Your task to perform on an android device: change the clock display to digital Image 0: 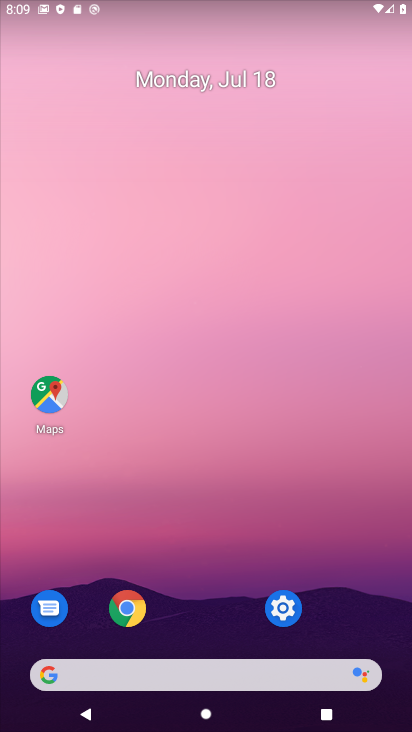
Step 0: drag from (276, 684) to (228, 266)
Your task to perform on an android device: change the clock display to digital Image 1: 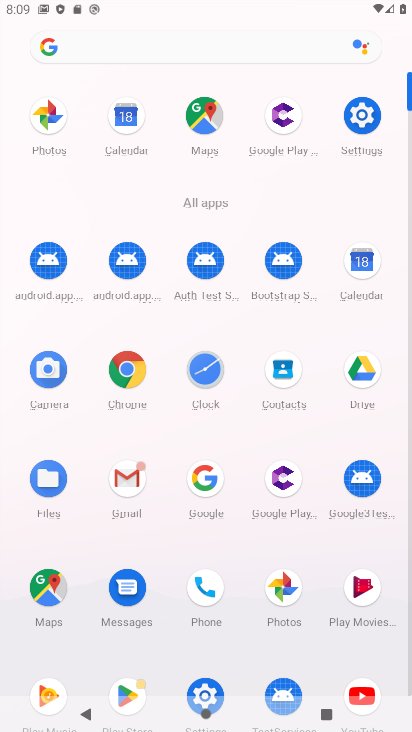
Step 1: click (207, 379)
Your task to perform on an android device: change the clock display to digital Image 2: 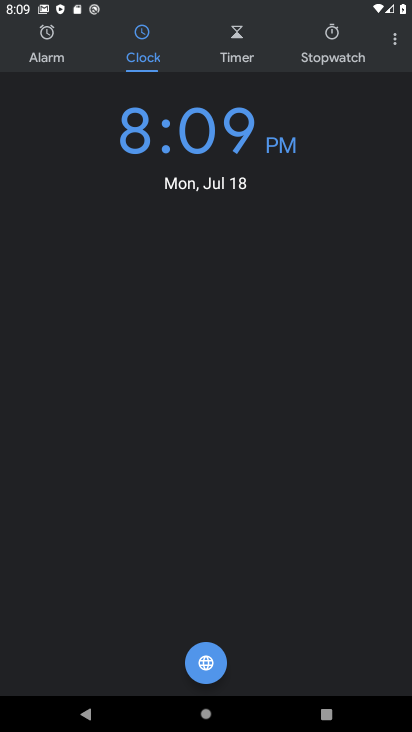
Step 2: click (393, 49)
Your task to perform on an android device: change the clock display to digital Image 3: 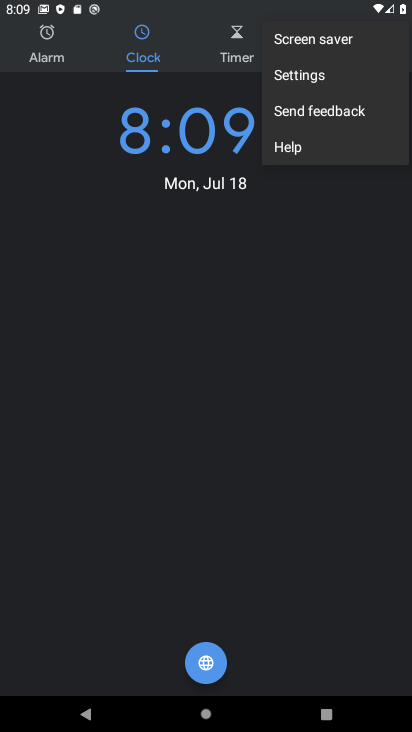
Step 3: click (300, 67)
Your task to perform on an android device: change the clock display to digital Image 4: 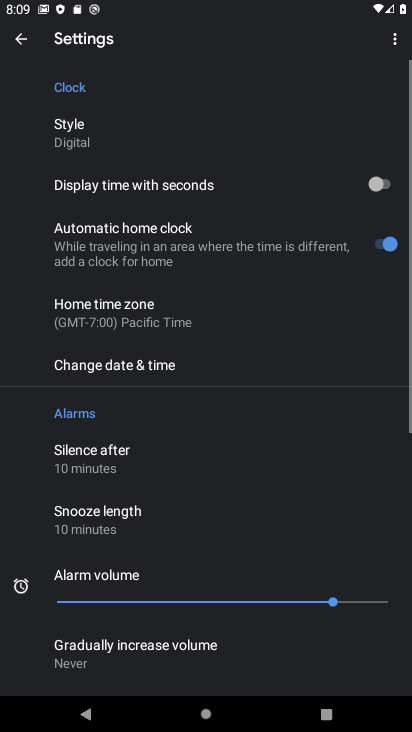
Step 4: click (129, 135)
Your task to perform on an android device: change the clock display to digital Image 5: 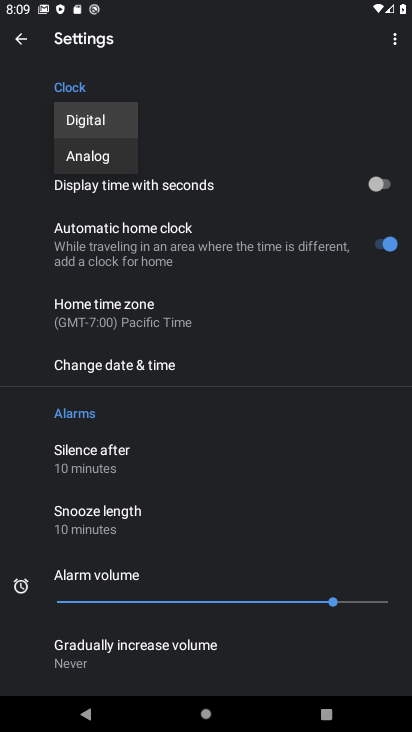
Step 5: click (99, 130)
Your task to perform on an android device: change the clock display to digital Image 6: 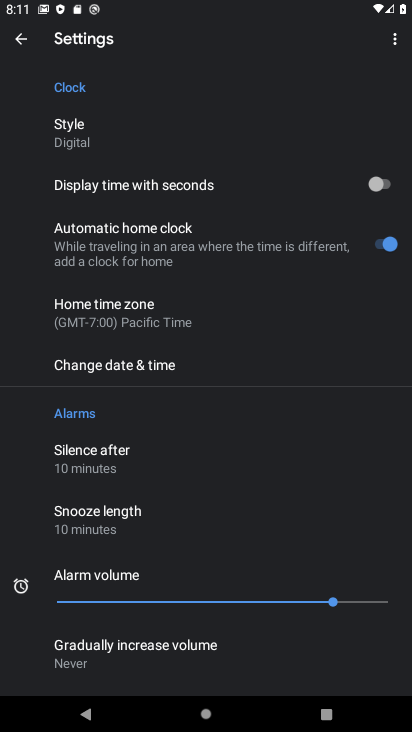
Step 6: task complete